Your task to perform on an android device: Set the phone to "Do not disturb". Image 0: 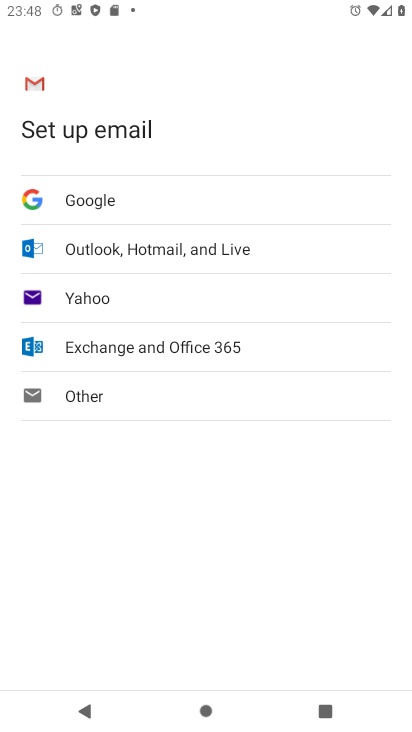
Step 0: press home button
Your task to perform on an android device: Set the phone to "Do not disturb". Image 1: 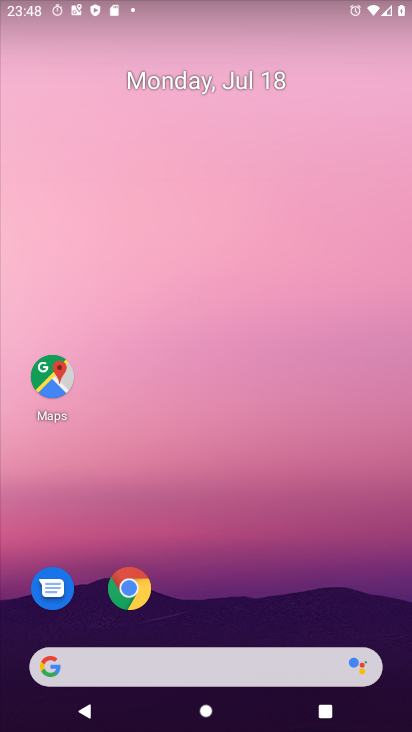
Step 1: drag from (158, 669) to (262, 132)
Your task to perform on an android device: Set the phone to "Do not disturb". Image 2: 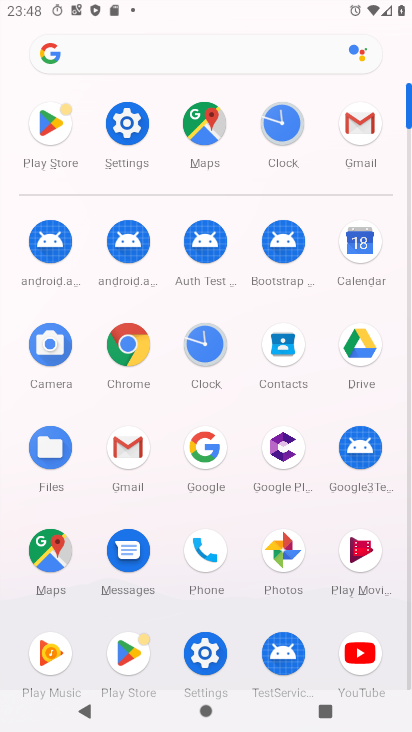
Step 2: click (119, 122)
Your task to perform on an android device: Set the phone to "Do not disturb". Image 3: 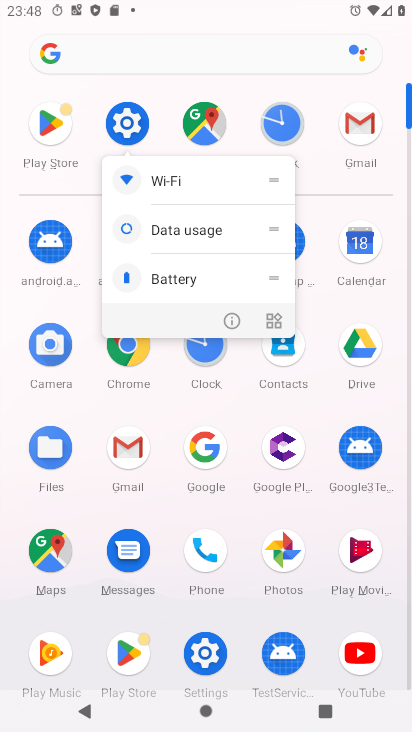
Step 3: click (129, 131)
Your task to perform on an android device: Set the phone to "Do not disturb". Image 4: 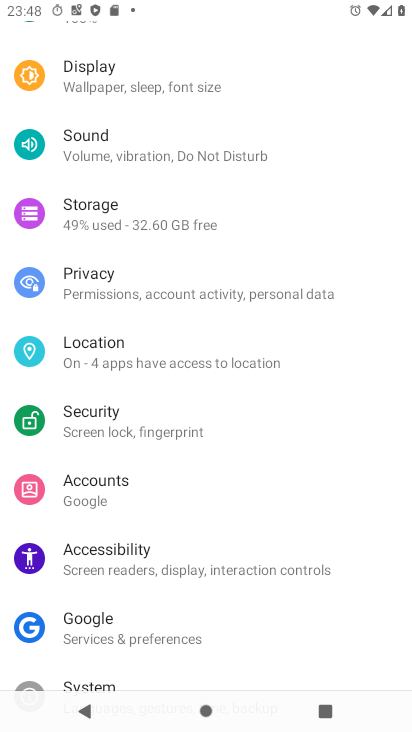
Step 4: click (106, 137)
Your task to perform on an android device: Set the phone to "Do not disturb". Image 5: 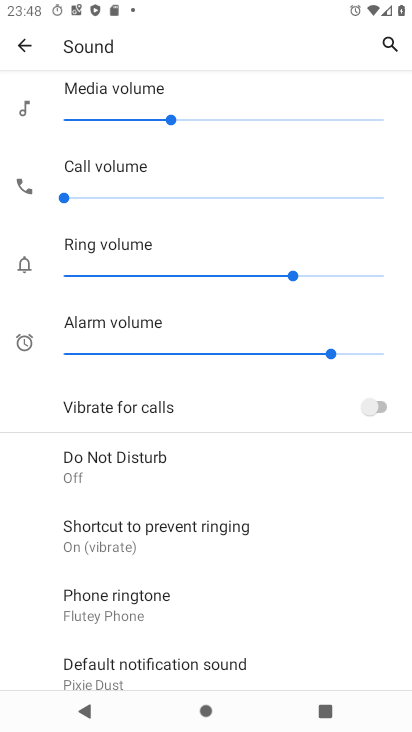
Step 5: click (115, 457)
Your task to perform on an android device: Set the phone to "Do not disturb". Image 6: 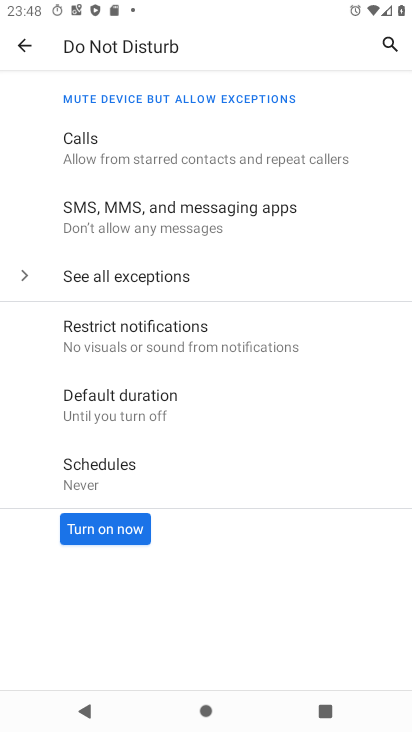
Step 6: click (92, 524)
Your task to perform on an android device: Set the phone to "Do not disturb". Image 7: 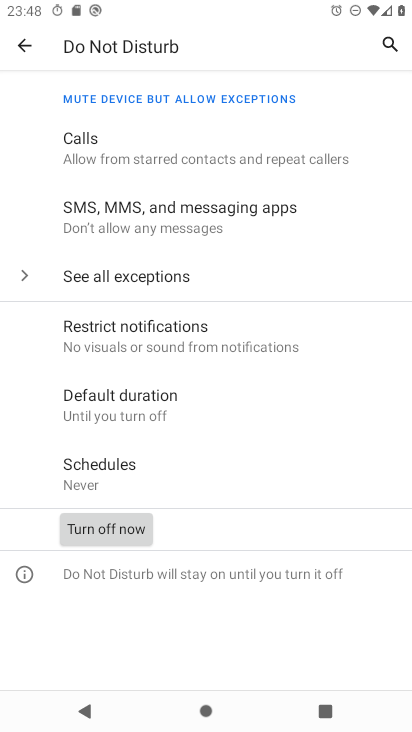
Step 7: task complete